Your task to perform on an android device: Open the map Image 0: 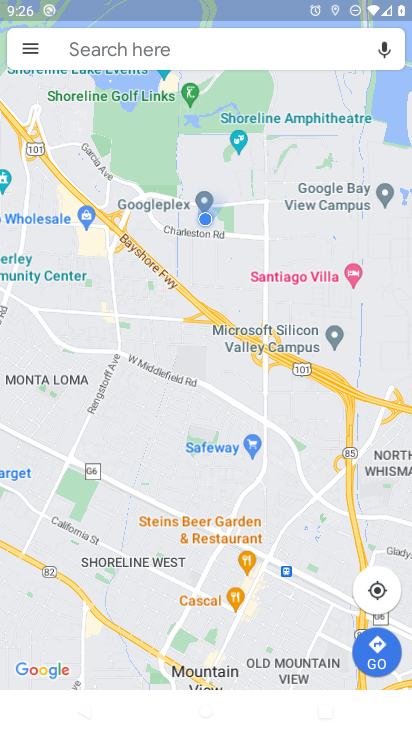
Step 0: drag from (3, 698) to (181, 246)
Your task to perform on an android device: Open the map Image 1: 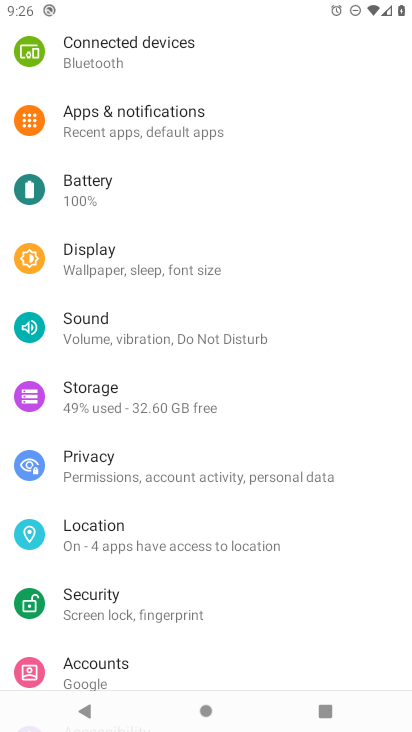
Step 1: press home button
Your task to perform on an android device: Open the map Image 2: 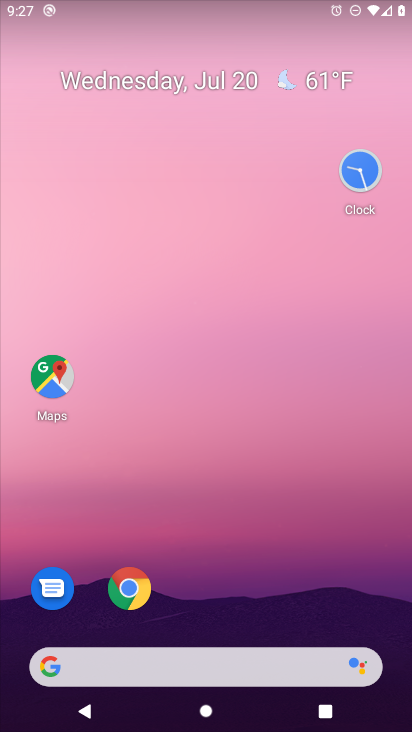
Step 2: click (61, 365)
Your task to perform on an android device: Open the map Image 3: 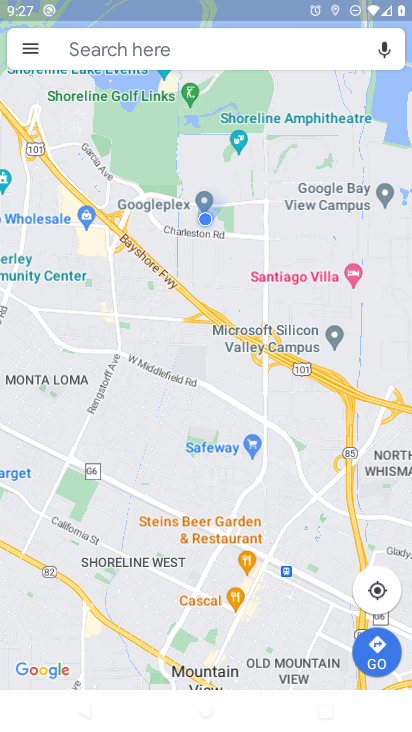
Step 3: task complete